Your task to perform on an android device: turn on improve location accuracy Image 0: 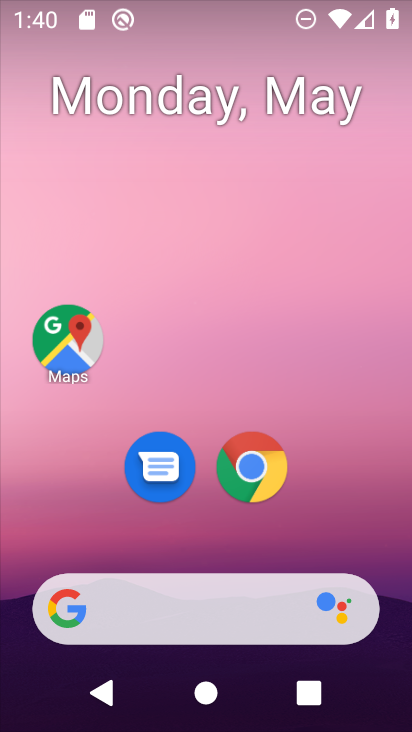
Step 0: drag from (195, 552) to (355, 13)
Your task to perform on an android device: turn on improve location accuracy Image 1: 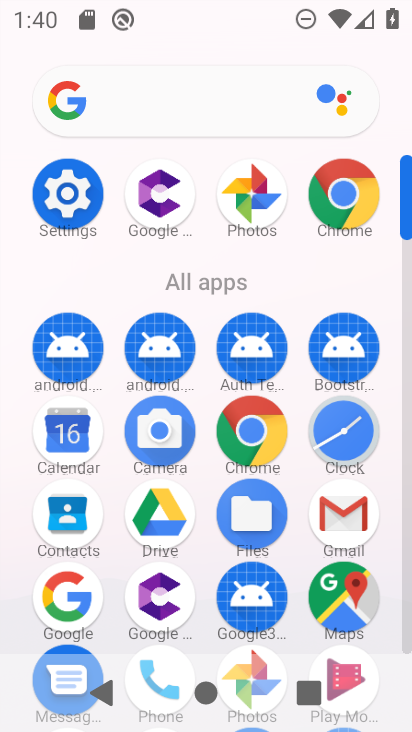
Step 1: drag from (226, 605) to (293, 397)
Your task to perform on an android device: turn on improve location accuracy Image 2: 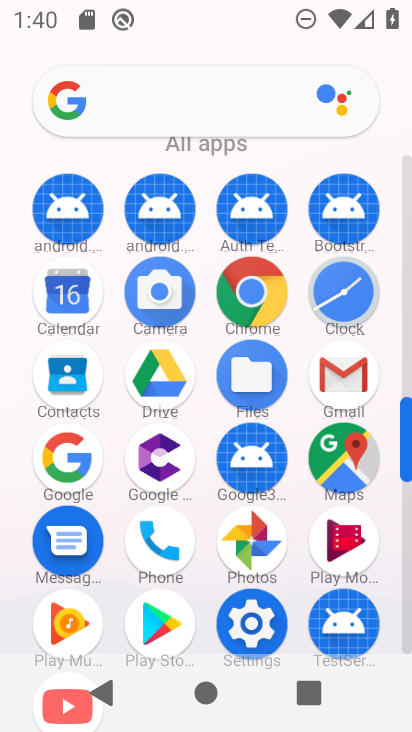
Step 2: click (284, 633)
Your task to perform on an android device: turn on improve location accuracy Image 3: 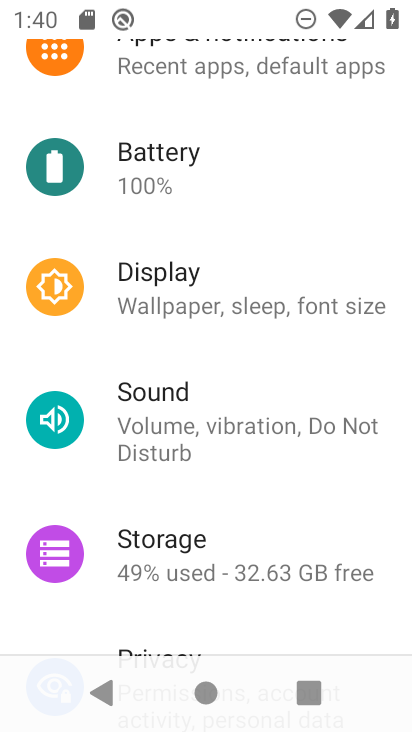
Step 3: drag from (203, 562) to (410, 175)
Your task to perform on an android device: turn on improve location accuracy Image 4: 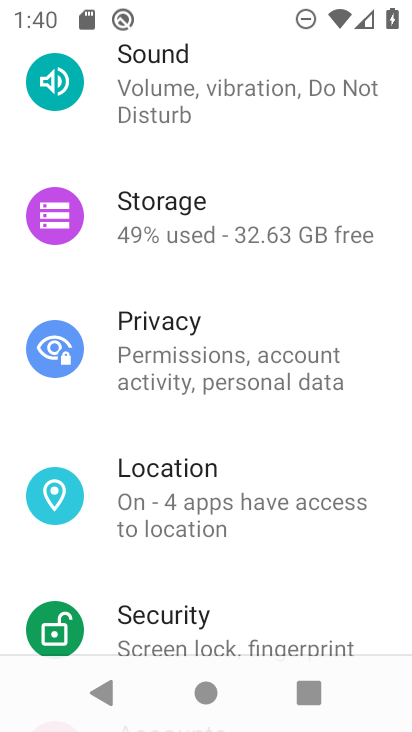
Step 4: click (230, 477)
Your task to perform on an android device: turn on improve location accuracy Image 5: 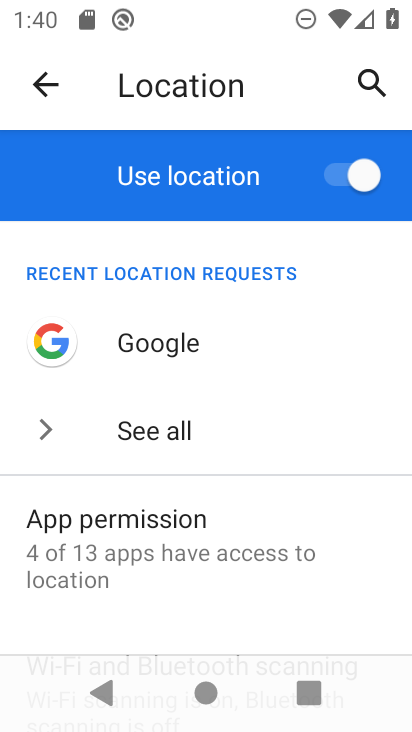
Step 5: drag from (209, 583) to (279, 273)
Your task to perform on an android device: turn on improve location accuracy Image 6: 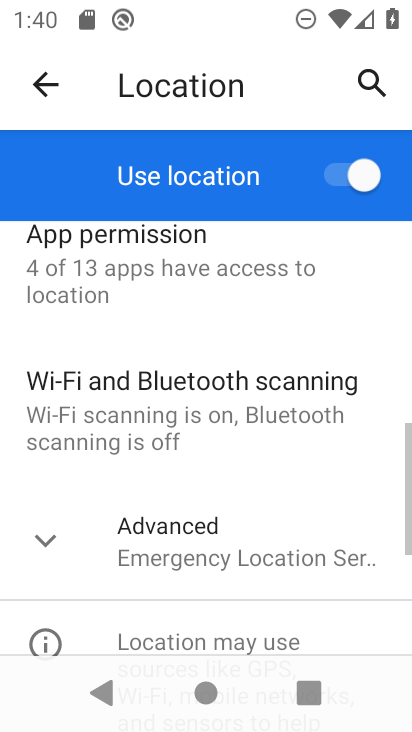
Step 6: click (240, 527)
Your task to perform on an android device: turn on improve location accuracy Image 7: 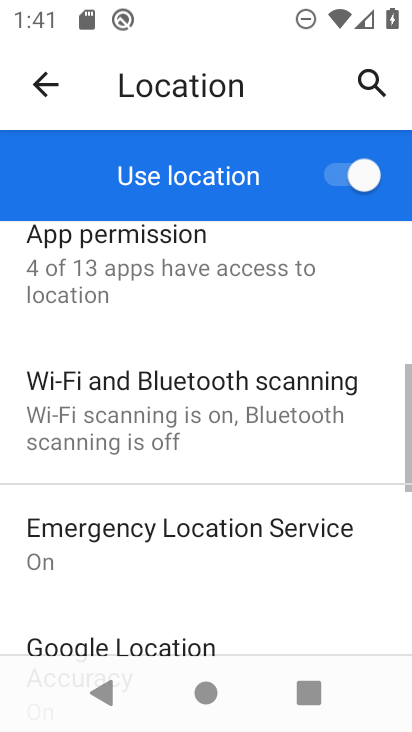
Step 7: drag from (229, 542) to (383, 216)
Your task to perform on an android device: turn on improve location accuracy Image 8: 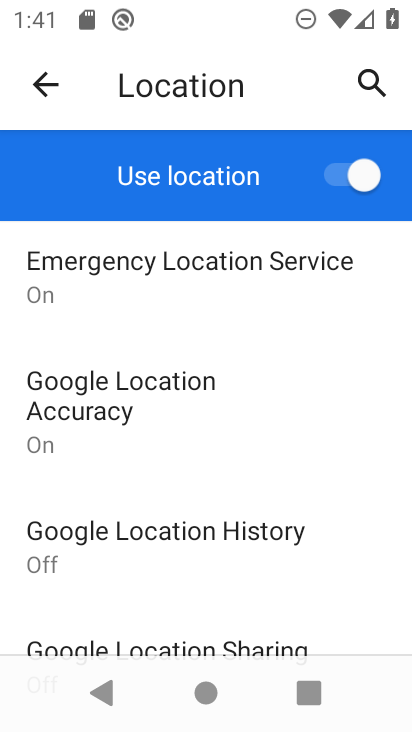
Step 8: click (260, 421)
Your task to perform on an android device: turn on improve location accuracy Image 9: 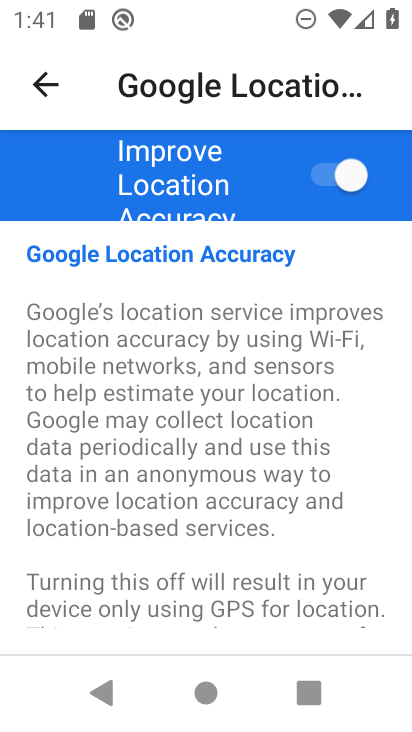
Step 9: task complete